Your task to perform on an android device: Go to Amazon Image 0: 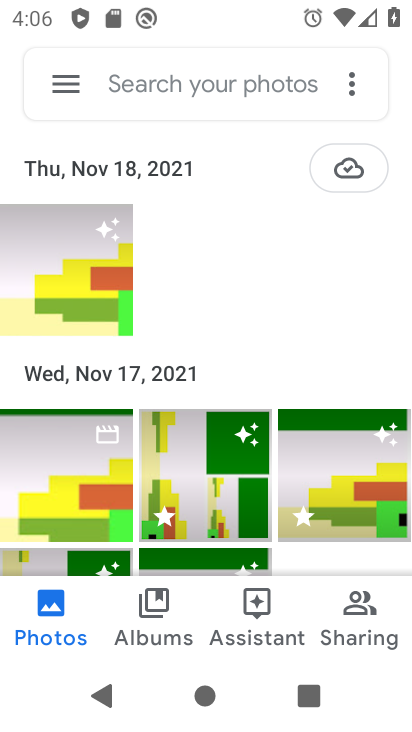
Step 0: press home button
Your task to perform on an android device: Go to Amazon Image 1: 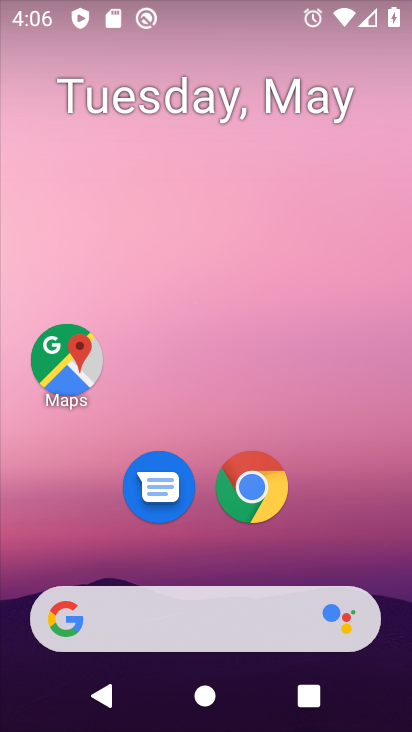
Step 1: click (268, 493)
Your task to perform on an android device: Go to Amazon Image 2: 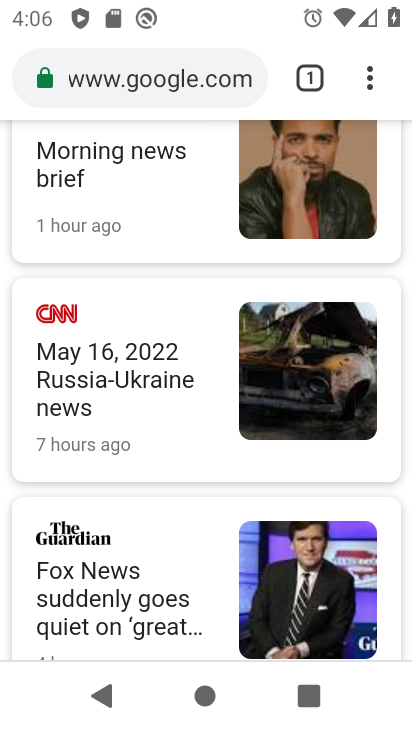
Step 2: click (197, 73)
Your task to perform on an android device: Go to Amazon Image 3: 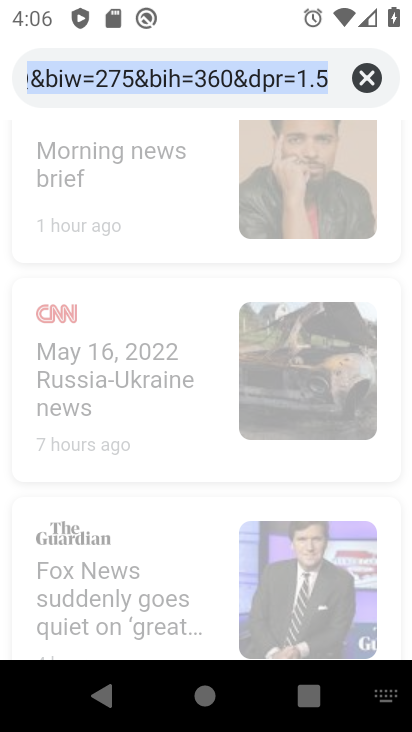
Step 3: type "amazon"
Your task to perform on an android device: Go to Amazon Image 4: 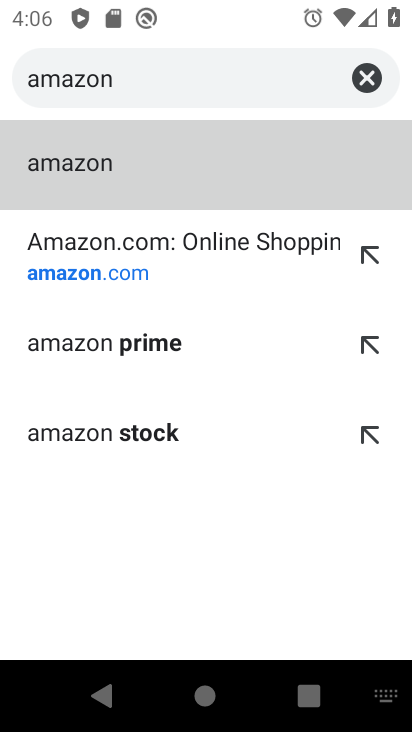
Step 4: click (100, 273)
Your task to perform on an android device: Go to Amazon Image 5: 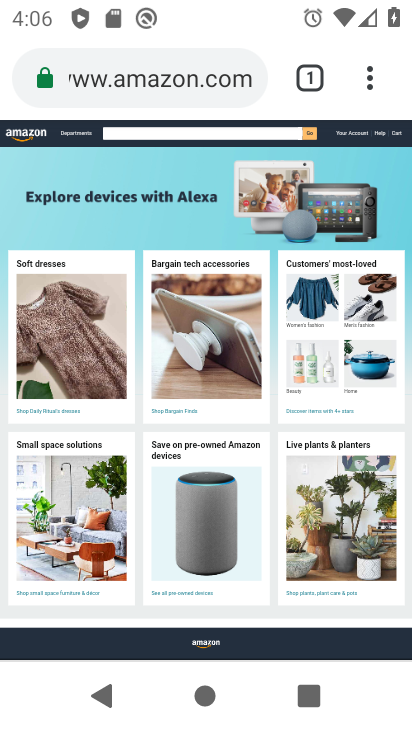
Step 5: task complete